Your task to perform on an android device: open a bookmark in the chrome app Image 0: 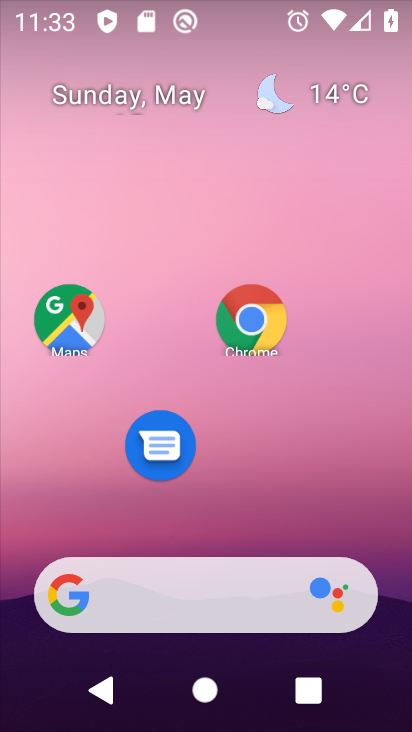
Step 0: press home button
Your task to perform on an android device: open a bookmark in the chrome app Image 1: 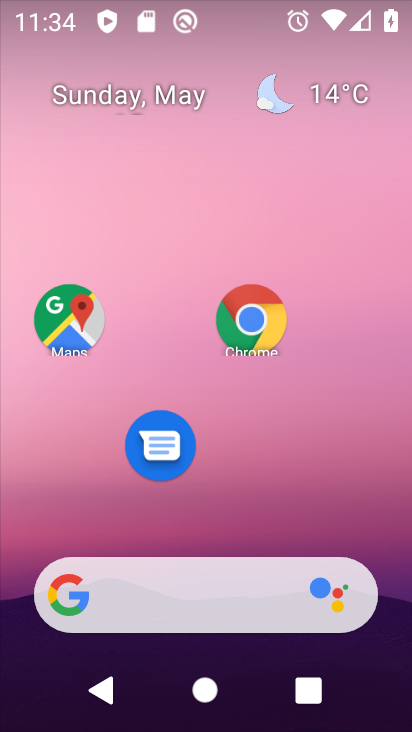
Step 1: drag from (171, 606) to (327, 158)
Your task to perform on an android device: open a bookmark in the chrome app Image 2: 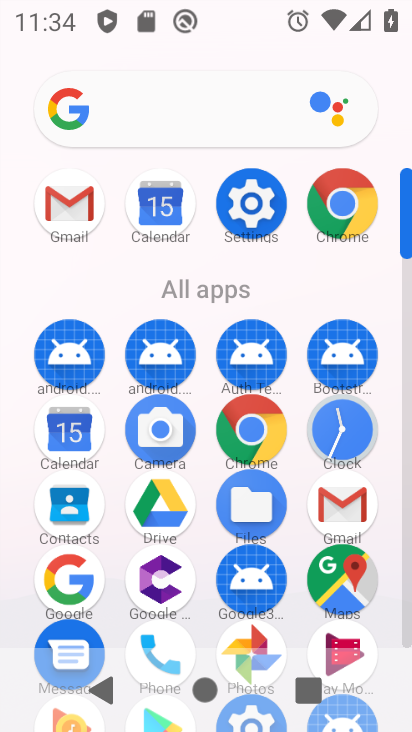
Step 2: click (350, 216)
Your task to perform on an android device: open a bookmark in the chrome app Image 3: 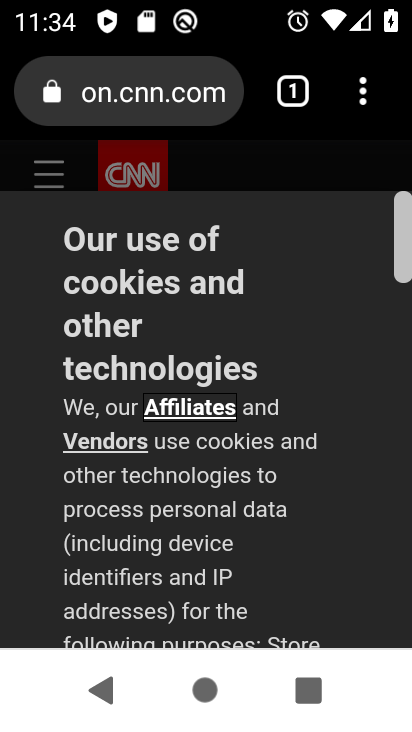
Step 3: task complete